Your task to perform on an android device: Open Google Maps Image 0: 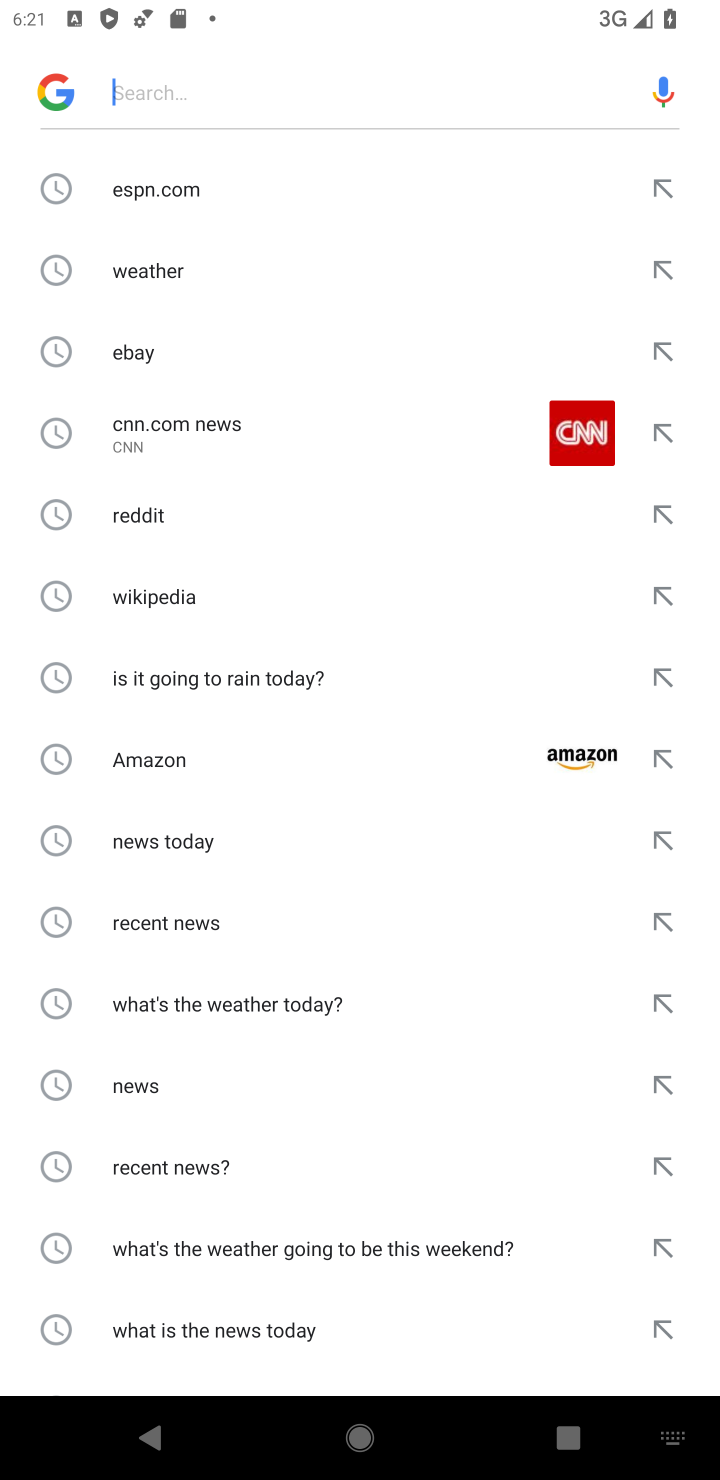
Step 0: press home button
Your task to perform on an android device: Open Google Maps Image 1: 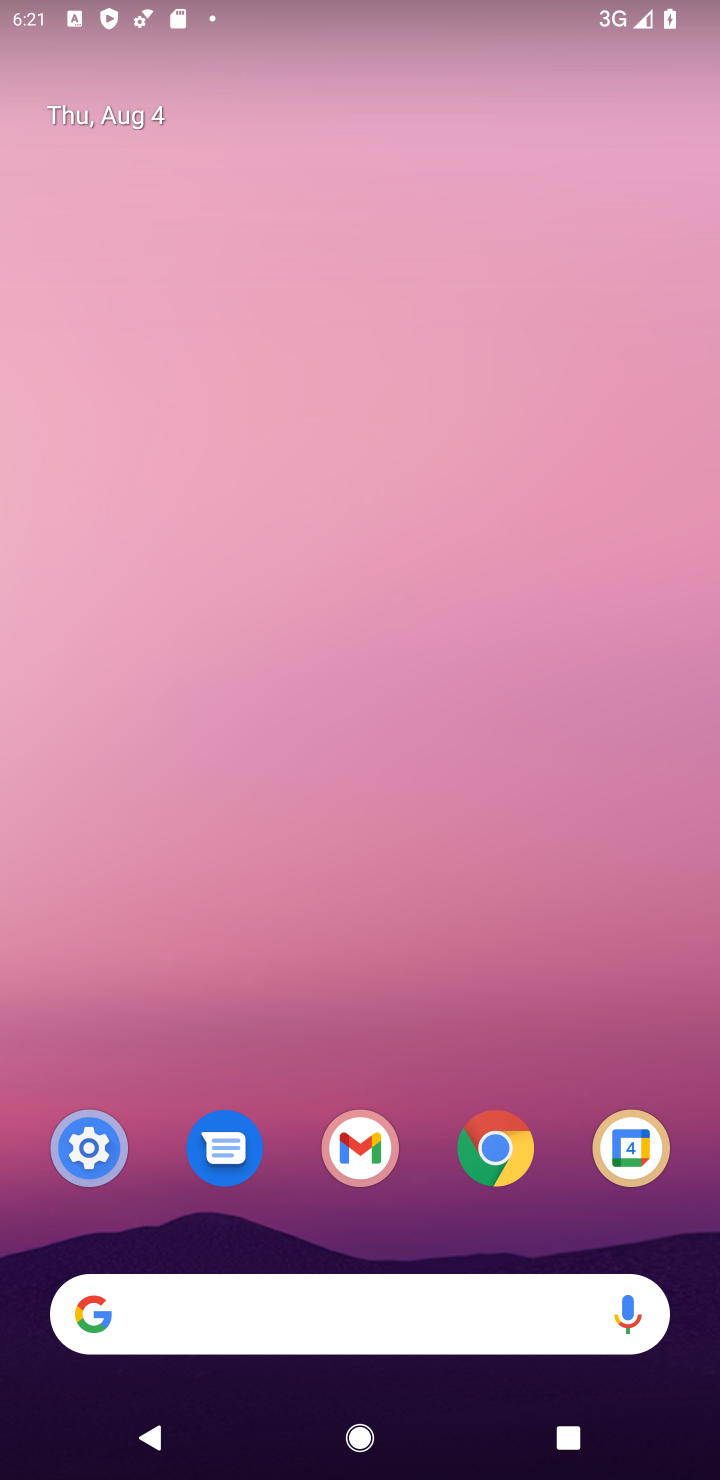
Step 1: drag from (428, 1181) to (417, 170)
Your task to perform on an android device: Open Google Maps Image 2: 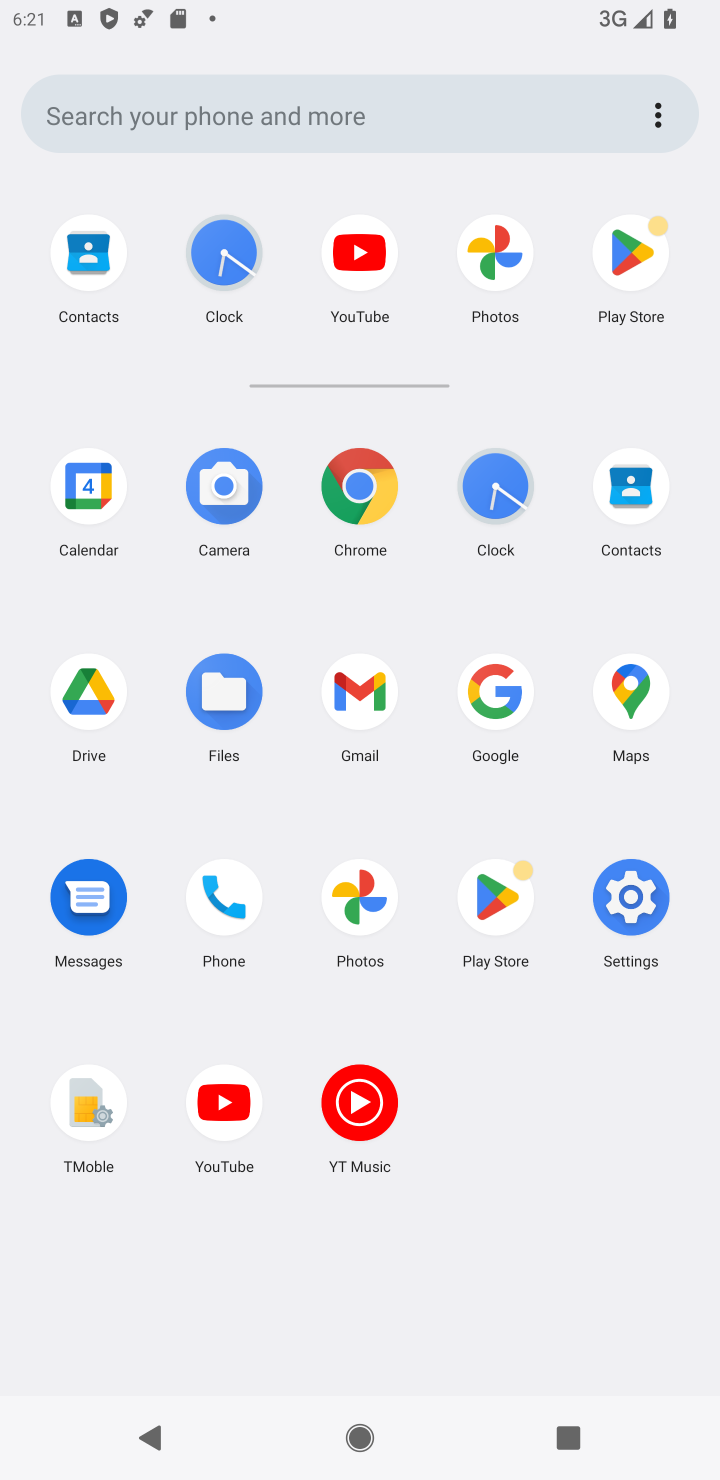
Step 2: click (638, 684)
Your task to perform on an android device: Open Google Maps Image 3: 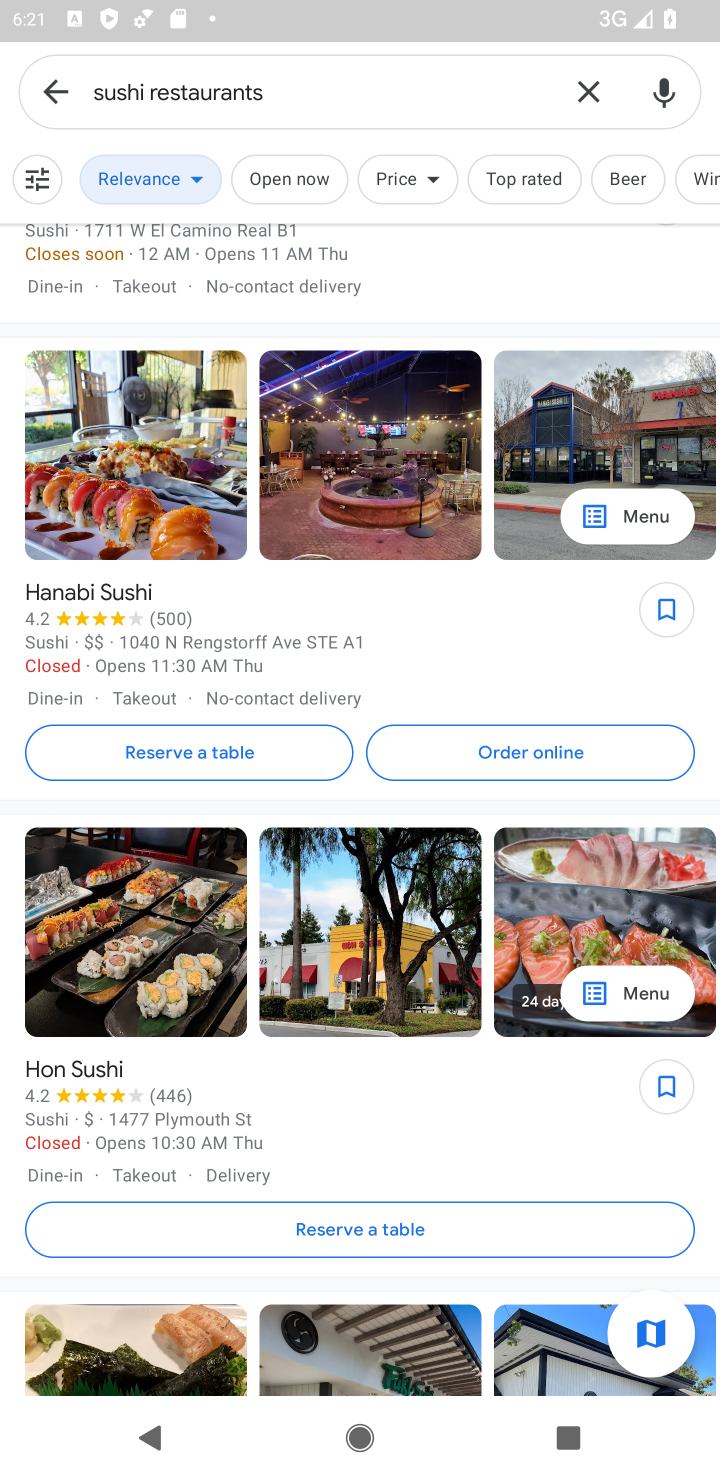
Step 3: click (575, 83)
Your task to perform on an android device: Open Google Maps Image 4: 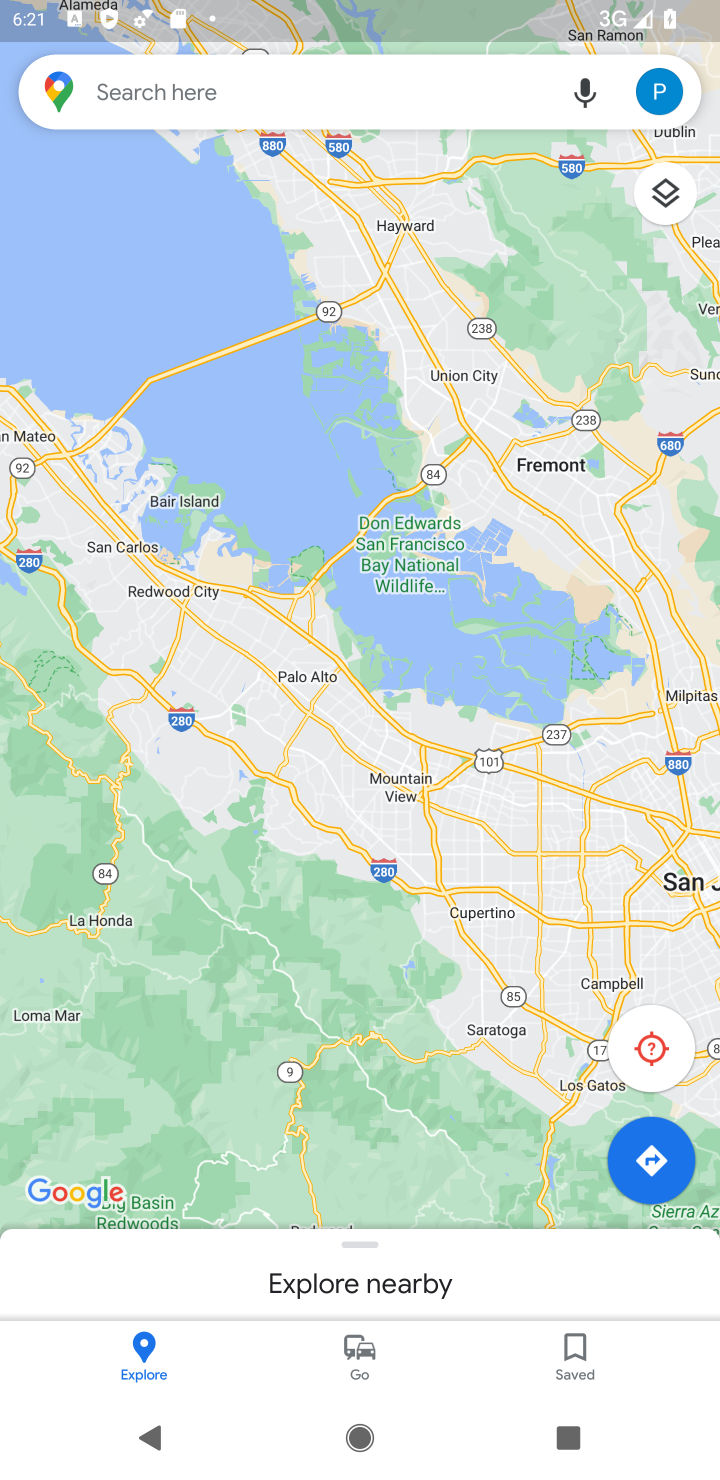
Step 4: task complete